Your task to perform on an android device: empty trash in the gmail app Image 0: 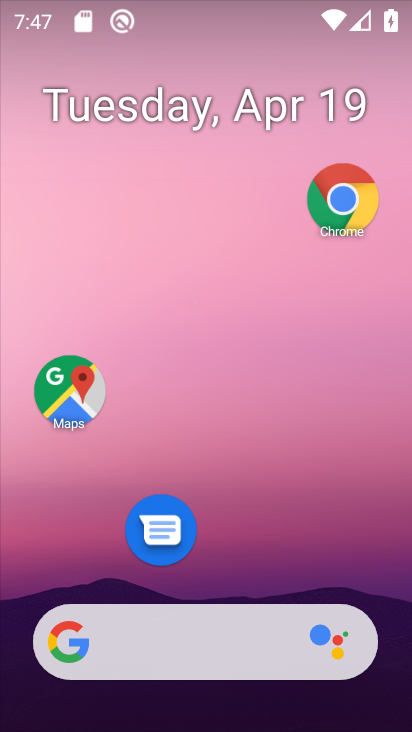
Step 0: drag from (226, 582) to (393, 67)
Your task to perform on an android device: empty trash in the gmail app Image 1: 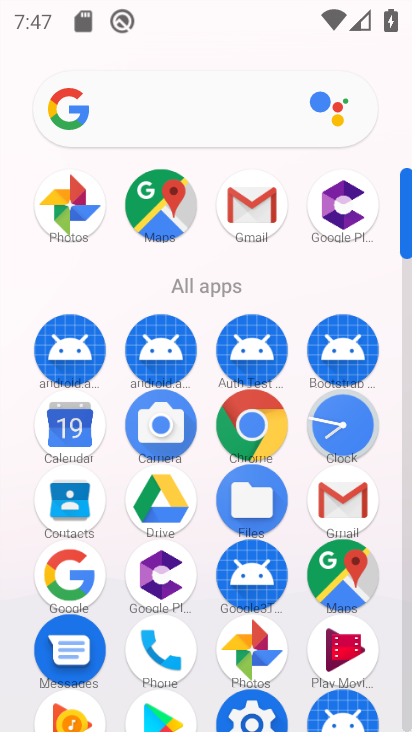
Step 1: click (329, 482)
Your task to perform on an android device: empty trash in the gmail app Image 2: 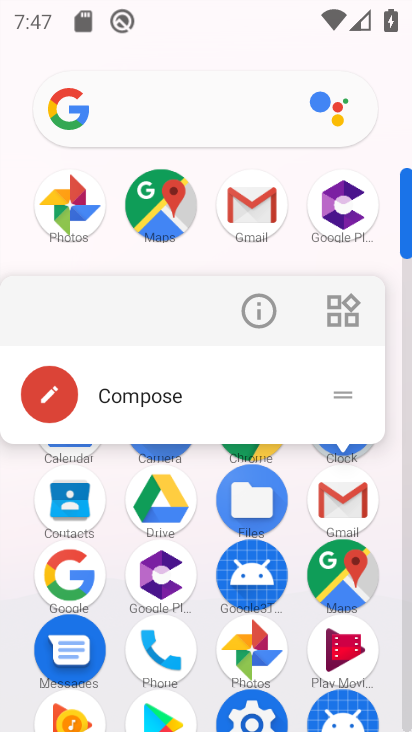
Step 2: click (266, 316)
Your task to perform on an android device: empty trash in the gmail app Image 3: 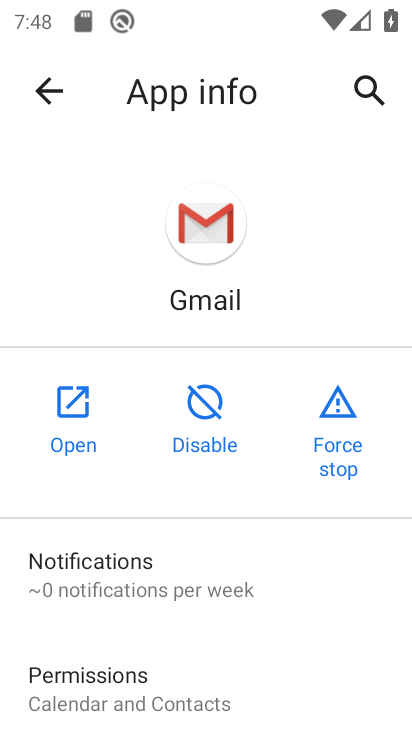
Step 3: click (82, 406)
Your task to perform on an android device: empty trash in the gmail app Image 4: 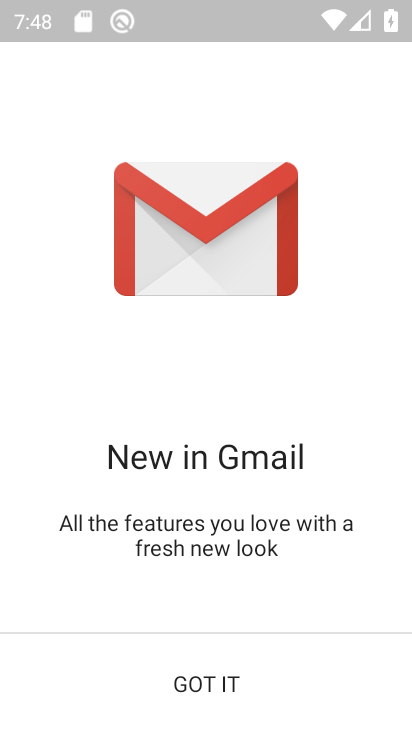
Step 4: click (213, 697)
Your task to perform on an android device: empty trash in the gmail app Image 5: 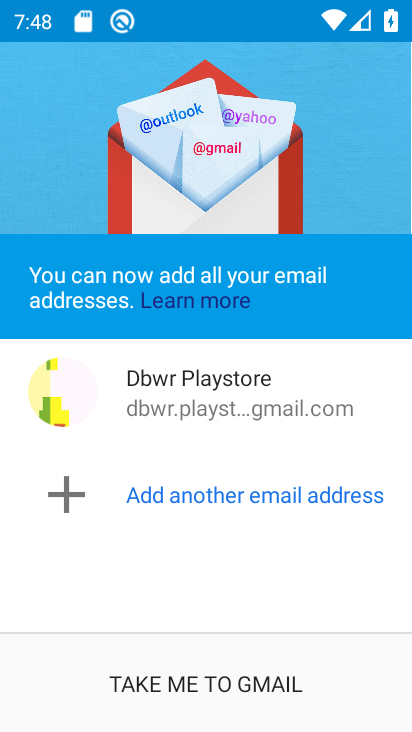
Step 5: click (182, 695)
Your task to perform on an android device: empty trash in the gmail app Image 6: 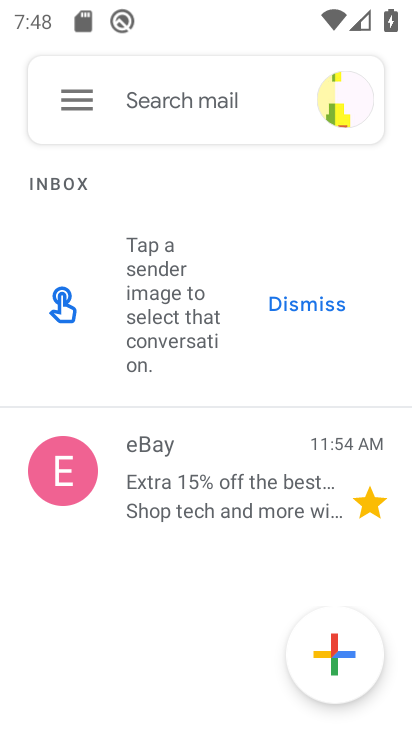
Step 6: click (76, 76)
Your task to perform on an android device: empty trash in the gmail app Image 7: 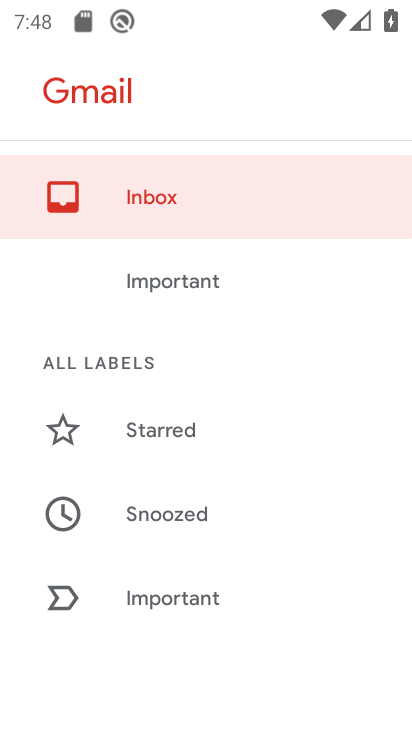
Step 7: drag from (188, 387) to (301, 41)
Your task to perform on an android device: empty trash in the gmail app Image 8: 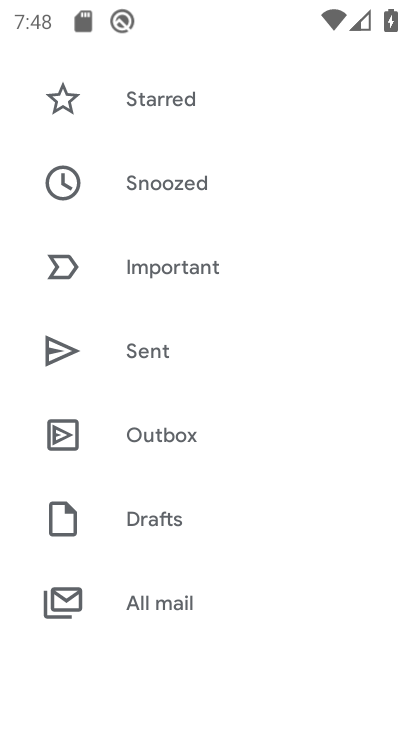
Step 8: drag from (261, 271) to (345, 13)
Your task to perform on an android device: empty trash in the gmail app Image 9: 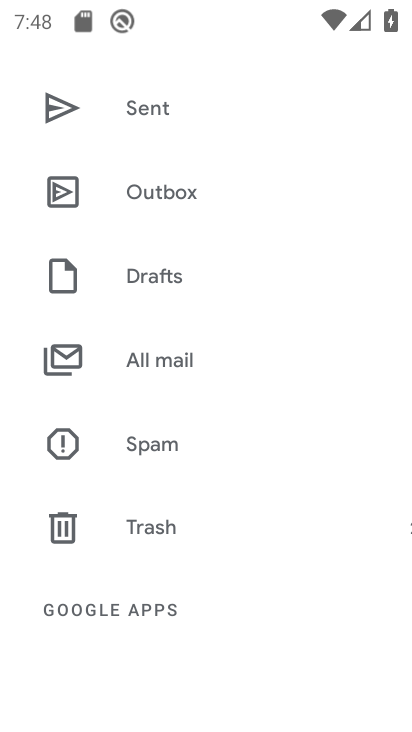
Step 9: drag from (195, 467) to (282, 182)
Your task to perform on an android device: empty trash in the gmail app Image 10: 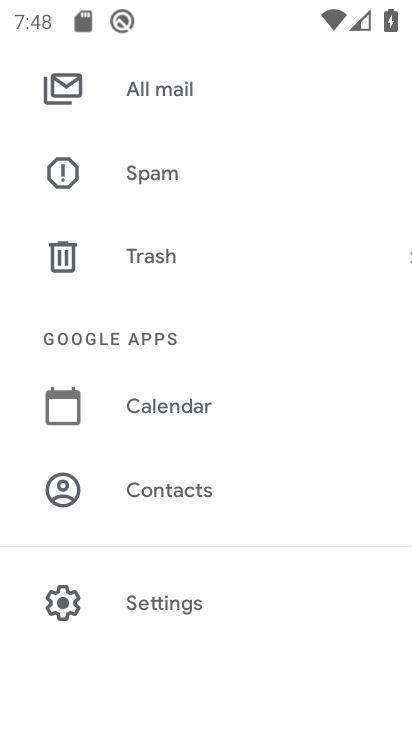
Step 10: click (166, 259)
Your task to perform on an android device: empty trash in the gmail app Image 11: 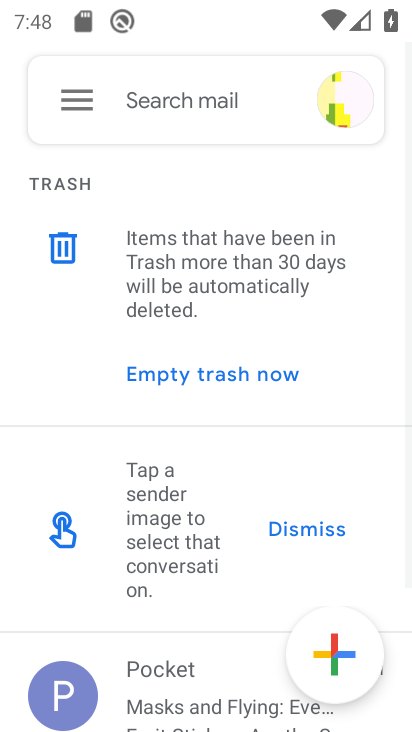
Step 11: drag from (233, 508) to (282, 343)
Your task to perform on an android device: empty trash in the gmail app Image 12: 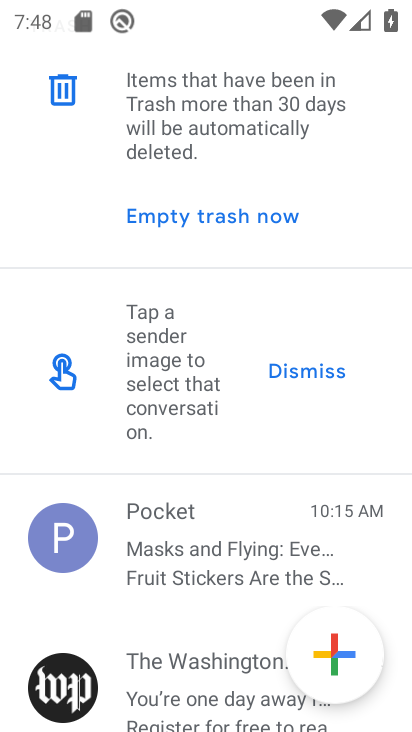
Step 12: click (203, 196)
Your task to perform on an android device: empty trash in the gmail app Image 13: 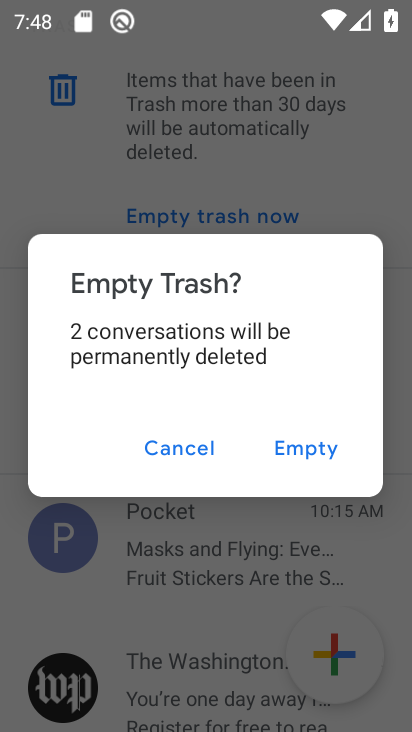
Step 13: click (314, 463)
Your task to perform on an android device: empty trash in the gmail app Image 14: 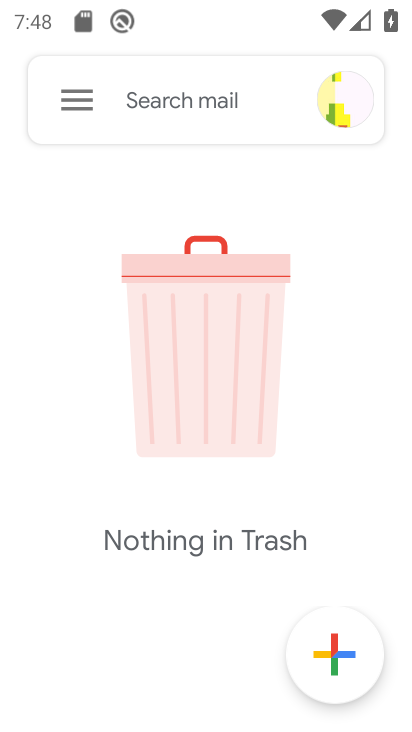
Step 14: task complete